Your task to perform on an android device: change the upload size in google photos Image 0: 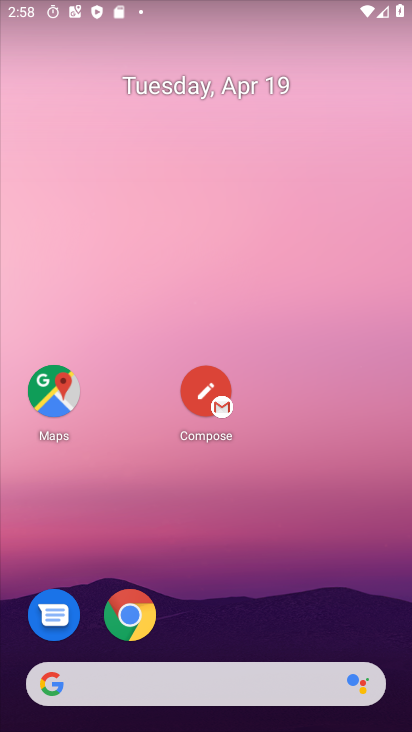
Step 0: drag from (243, 611) to (281, 20)
Your task to perform on an android device: change the upload size in google photos Image 1: 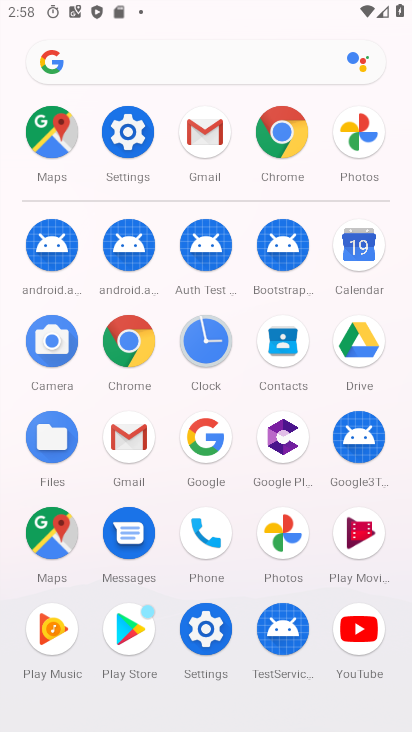
Step 1: click (284, 536)
Your task to perform on an android device: change the upload size in google photos Image 2: 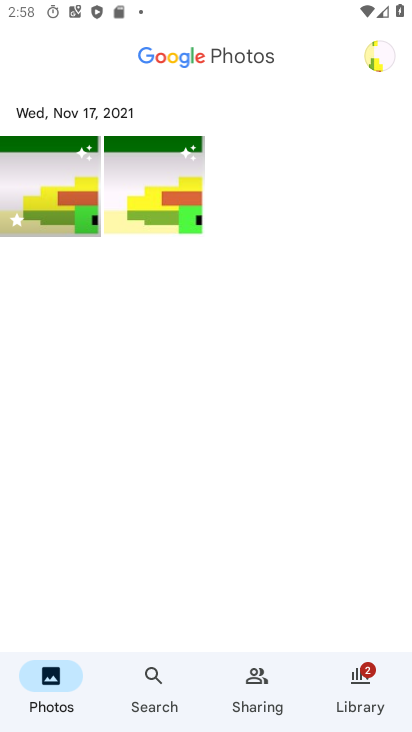
Step 2: click (382, 50)
Your task to perform on an android device: change the upload size in google photos Image 3: 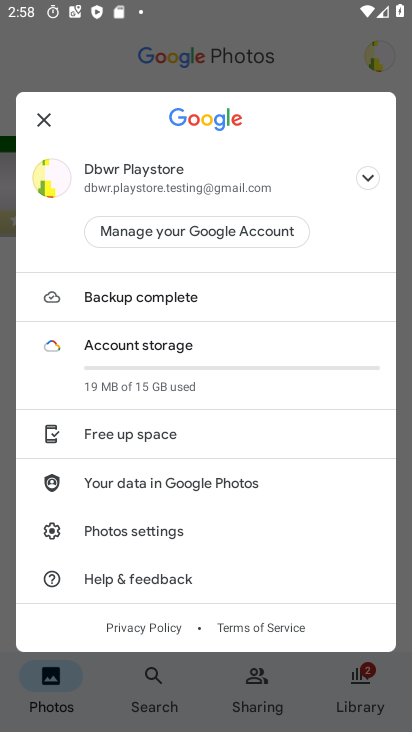
Step 3: click (190, 298)
Your task to perform on an android device: change the upload size in google photos Image 4: 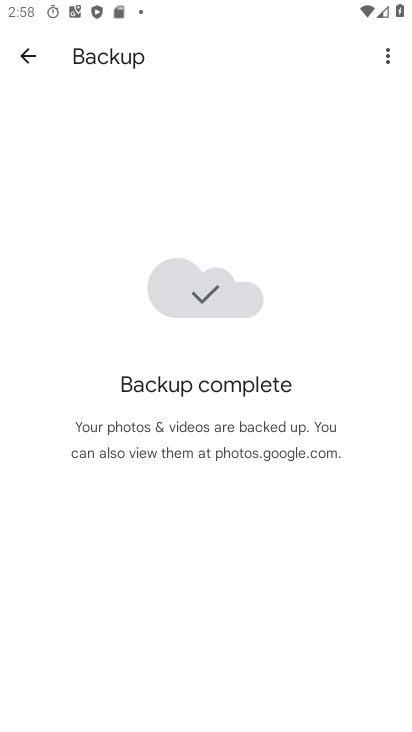
Step 4: click (389, 60)
Your task to perform on an android device: change the upload size in google photos Image 5: 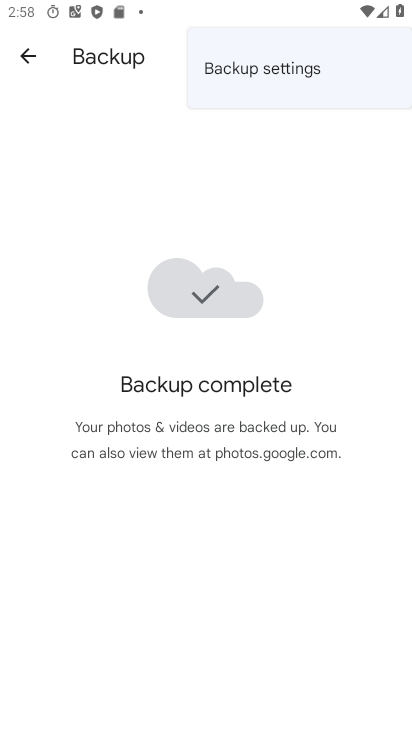
Step 5: click (315, 72)
Your task to perform on an android device: change the upload size in google photos Image 6: 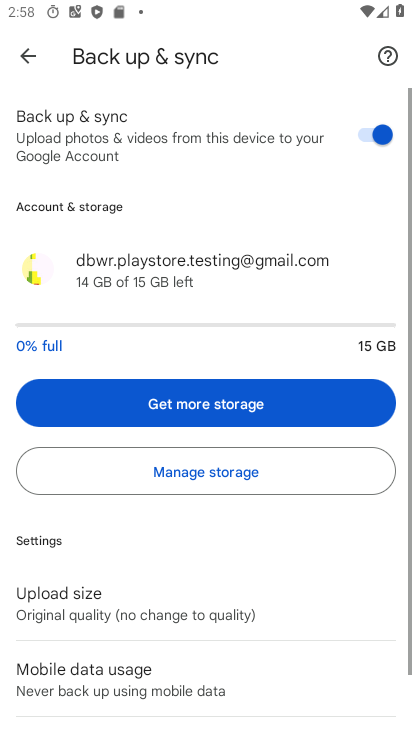
Step 6: drag from (225, 562) to (213, 193)
Your task to perform on an android device: change the upload size in google photos Image 7: 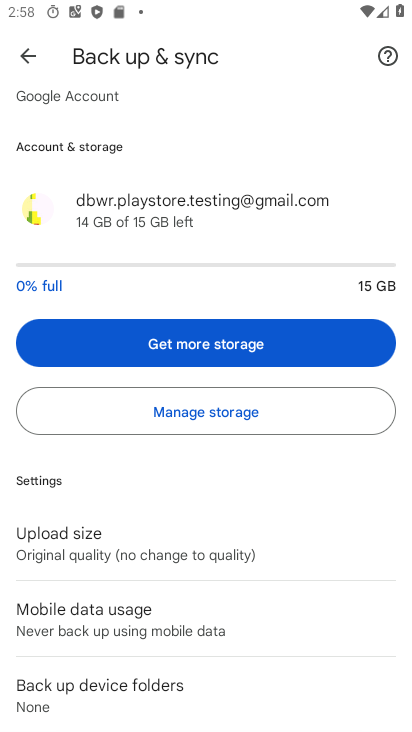
Step 7: click (158, 555)
Your task to perform on an android device: change the upload size in google photos Image 8: 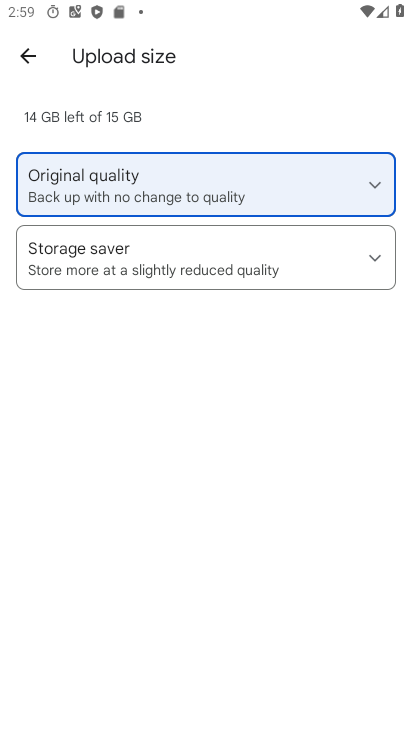
Step 8: click (218, 263)
Your task to perform on an android device: change the upload size in google photos Image 9: 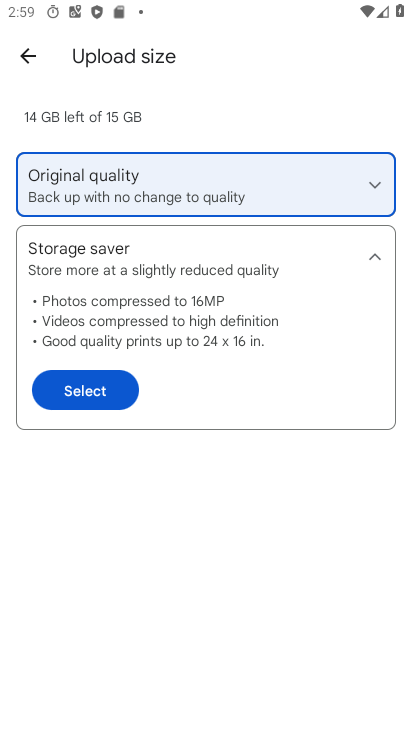
Step 9: click (116, 386)
Your task to perform on an android device: change the upload size in google photos Image 10: 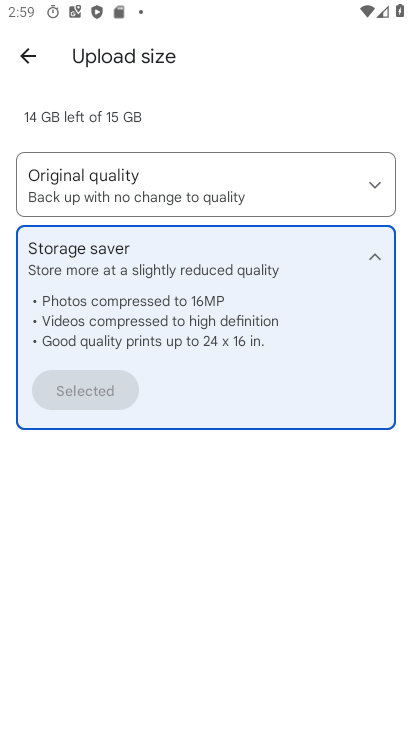
Step 10: task complete